Your task to perform on an android device: toggle priority inbox in the gmail app Image 0: 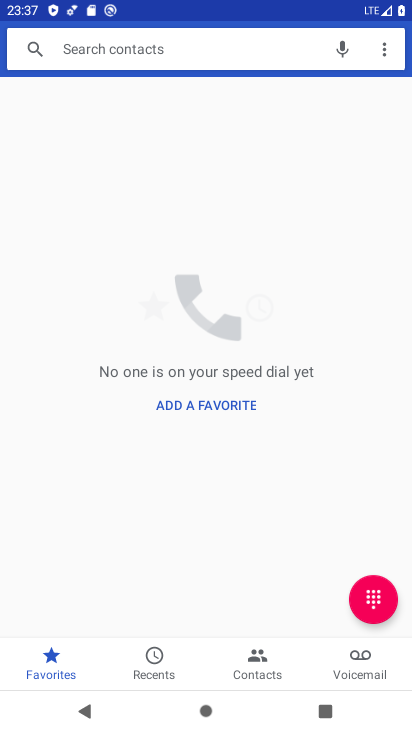
Step 0: press home button
Your task to perform on an android device: toggle priority inbox in the gmail app Image 1: 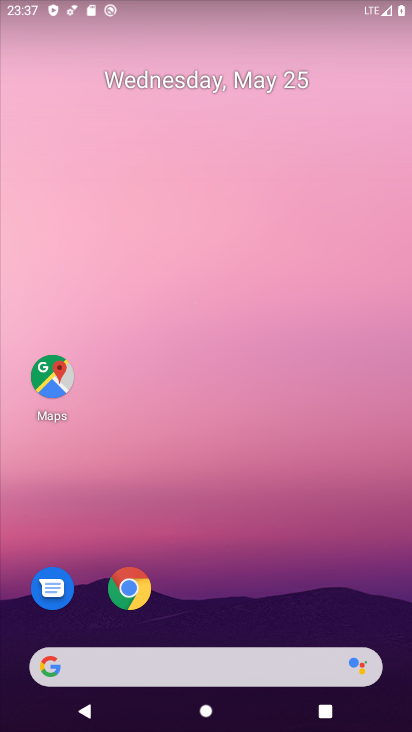
Step 1: drag from (244, 547) to (176, 52)
Your task to perform on an android device: toggle priority inbox in the gmail app Image 2: 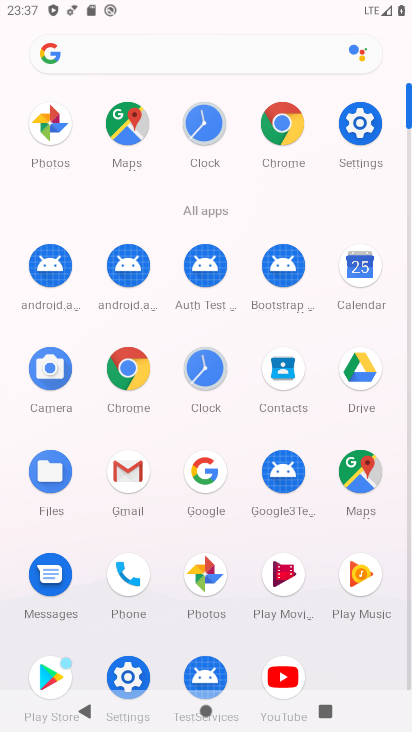
Step 2: click (130, 476)
Your task to perform on an android device: toggle priority inbox in the gmail app Image 3: 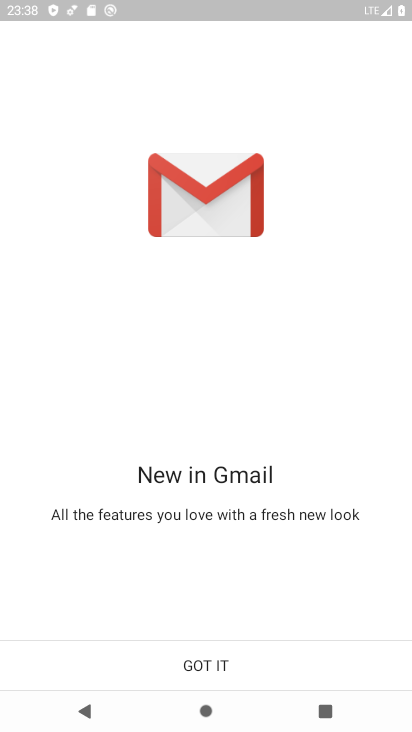
Step 3: click (214, 659)
Your task to perform on an android device: toggle priority inbox in the gmail app Image 4: 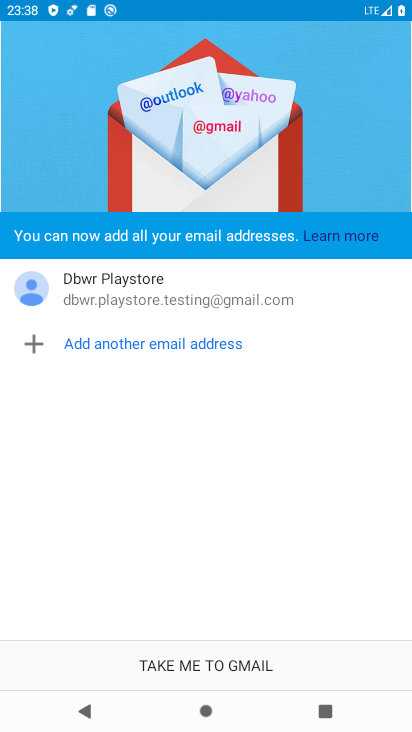
Step 4: click (205, 653)
Your task to perform on an android device: toggle priority inbox in the gmail app Image 5: 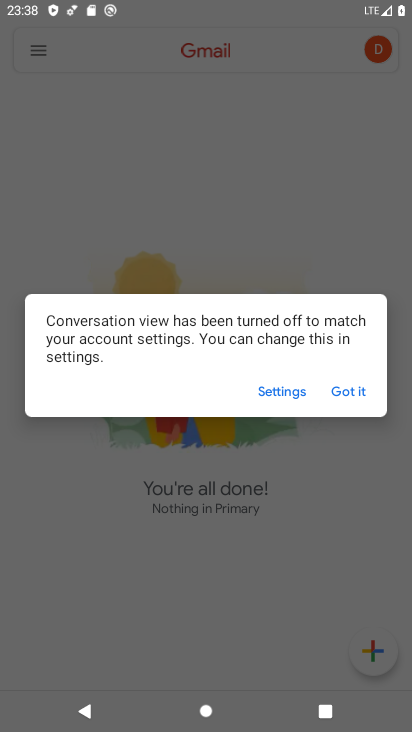
Step 5: click (348, 389)
Your task to perform on an android device: toggle priority inbox in the gmail app Image 6: 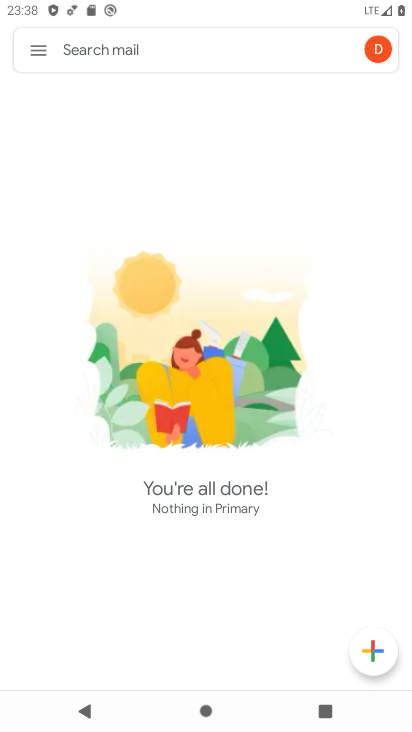
Step 6: click (33, 41)
Your task to perform on an android device: toggle priority inbox in the gmail app Image 7: 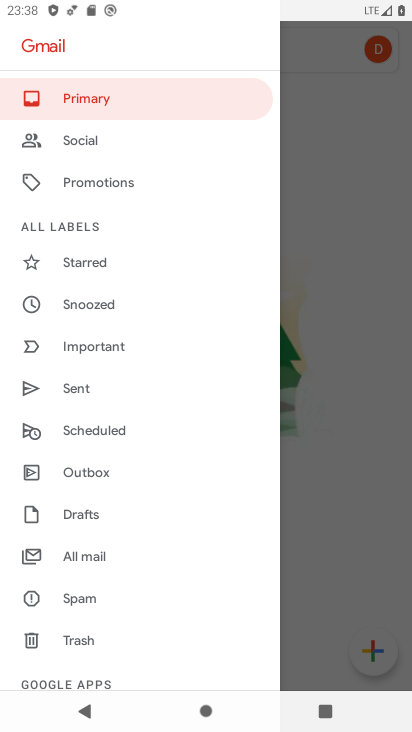
Step 7: drag from (120, 608) to (77, 264)
Your task to perform on an android device: toggle priority inbox in the gmail app Image 8: 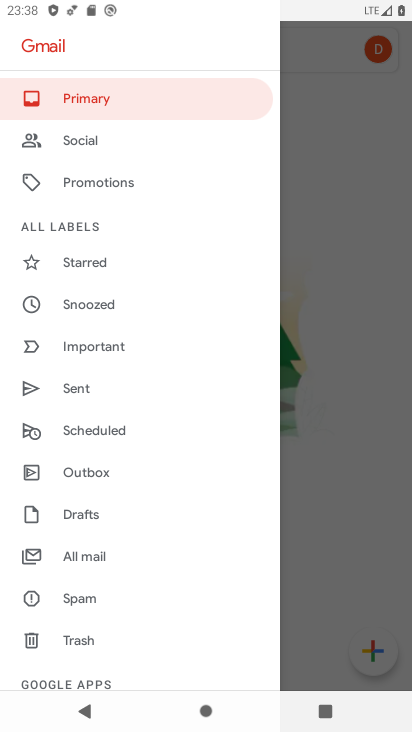
Step 8: drag from (106, 621) to (97, 169)
Your task to perform on an android device: toggle priority inbox in the gmail app Image 9: 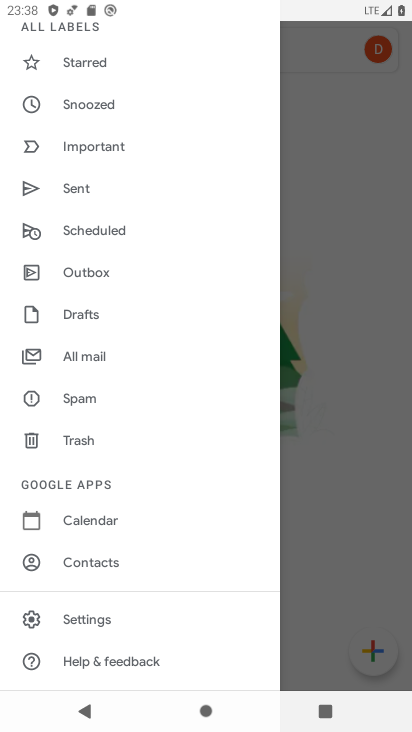
Step 9: click (75, 615)
Your task to perform on an android device: toggle priority inbox in the gmail app Image 10: 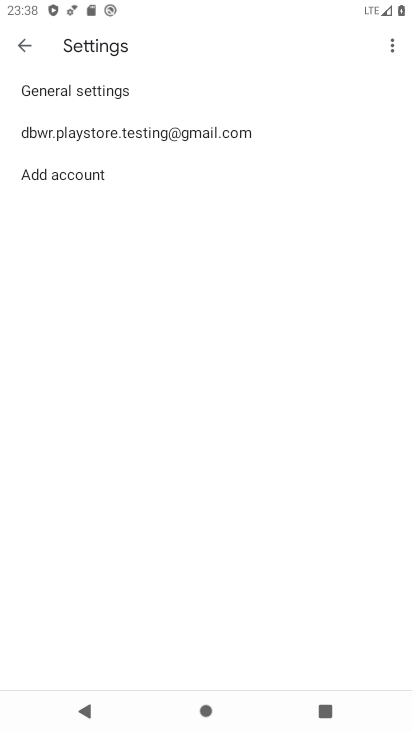
Step 10: click (78, 135)
Your task to perform on an android device: toggle priority inbox in the gmail app Image 11: 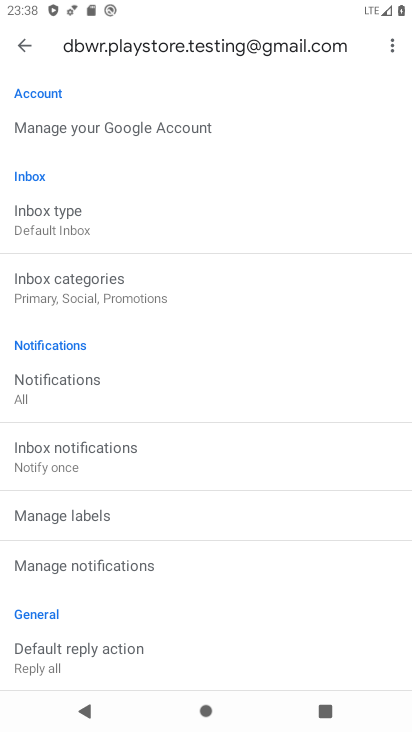
Step 11: click (55, 203)
Your task to perform on an android device: toggle priority inbox in the gmail app Image 12: 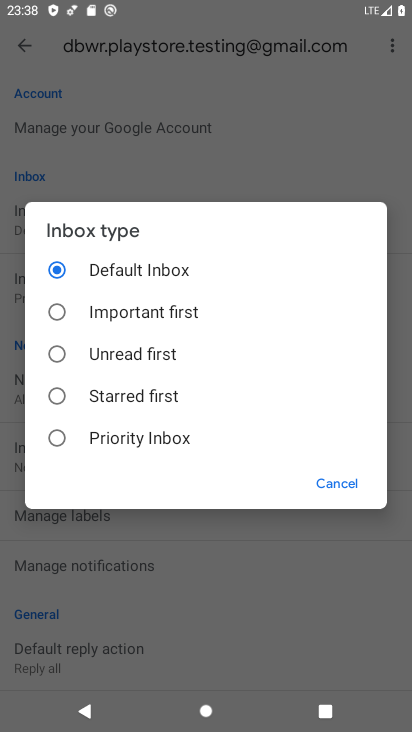
Step 12: click (55, 433)
Your task to perform on an android device: toggle priority inbox in the gmail app Image 13: 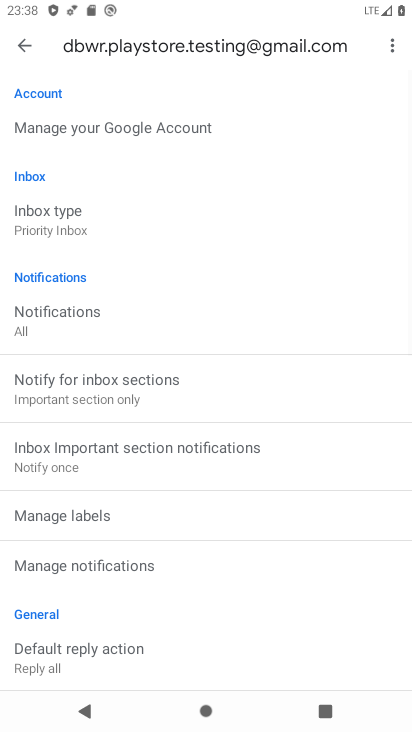
Step 13: task complete